Your task to perform on an android device: Go to battery settings Image 0: 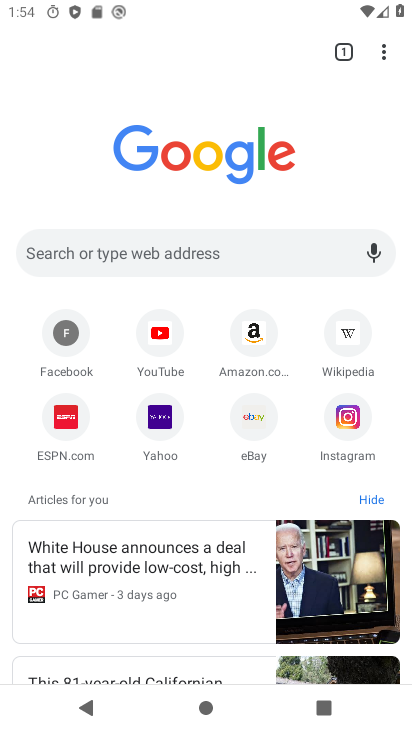
Step 0: press home button
Your task to perform on an android device: Go to battery settings Image 1: 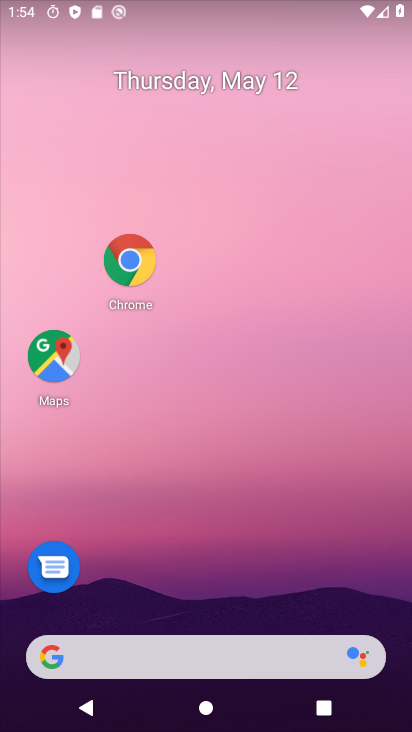
Step 1: drag from (178, 635) to (233, 252)
Your task to perform on an android device: Go to battery settings Image 2: 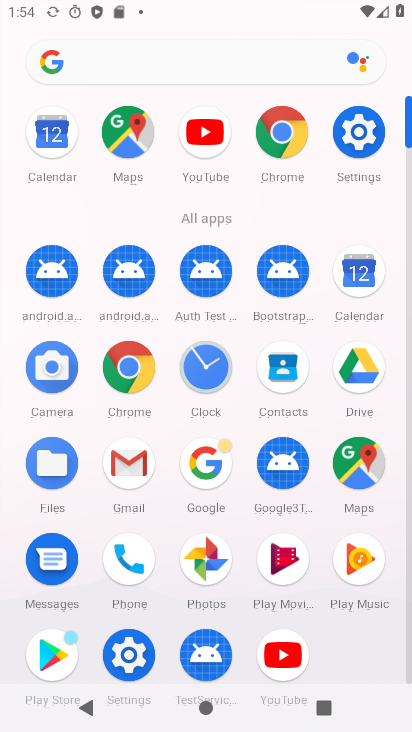
Step 2: click (367, 133)
Your task to perform on an android device: Go to battery settings Image 3: 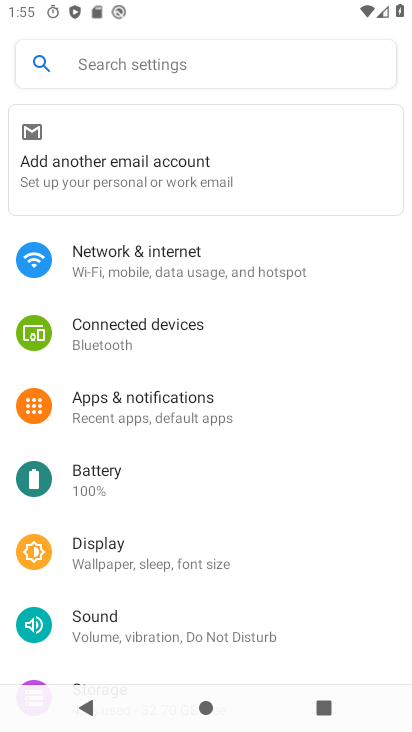
Step 3: click (95, 490)
Your task to perform on an android device: Go to battery settings Image 4: 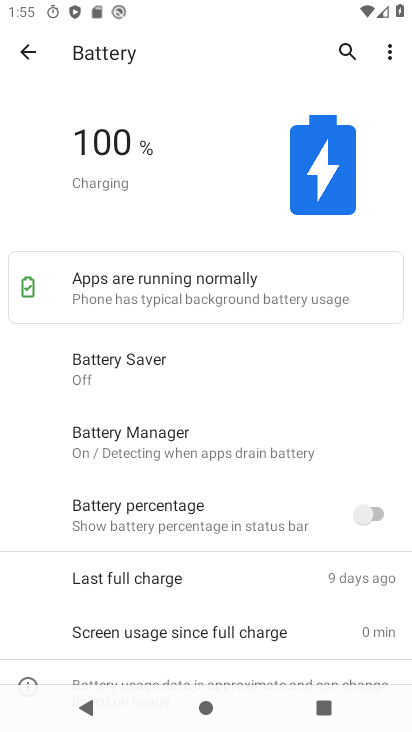
Step 4: task complete